Your task to perform on an android device: toggle sleep mode Image 0: 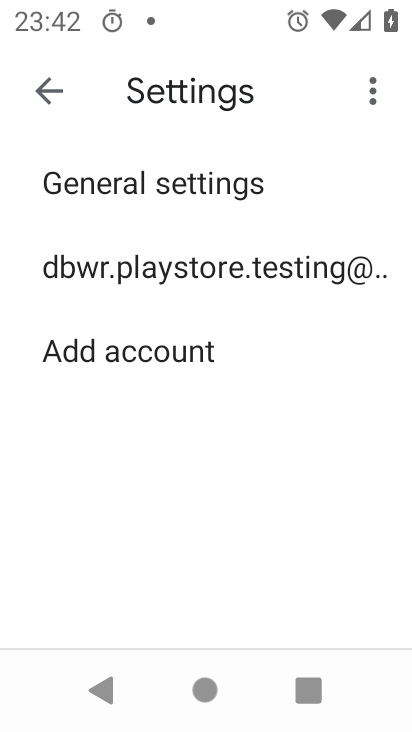
Step 0: press back button
Your task to perform on an android device: toggle sleep mode Image 1: 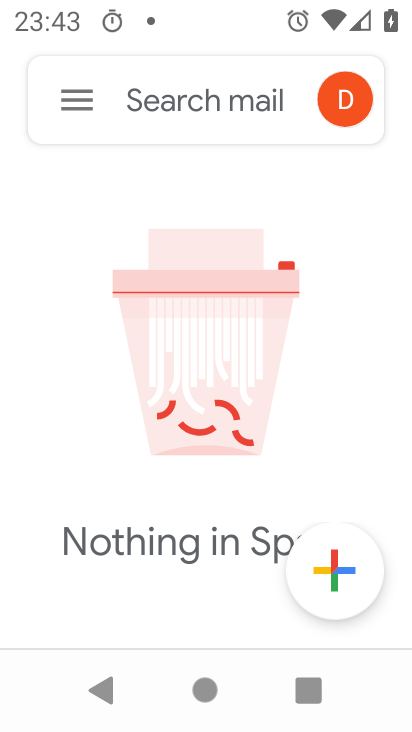
Step 1: press home button
Your task to perform on an android device: toggle sleep mode Image 2: 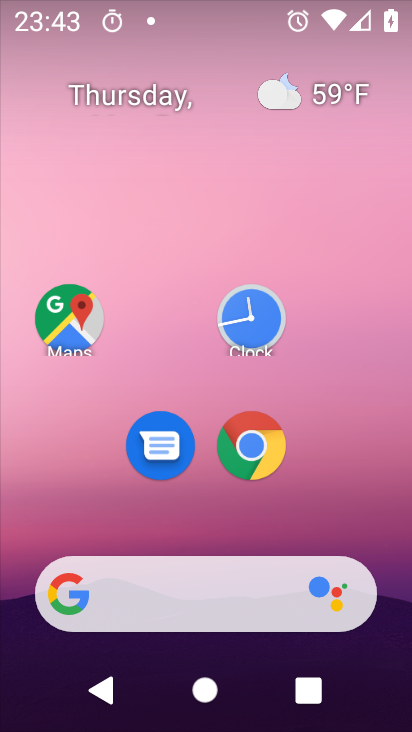
Step 2: drag from (208, 588) to (225, 296)
Your task to perform on an android device: toggle sleep mode Image 3: 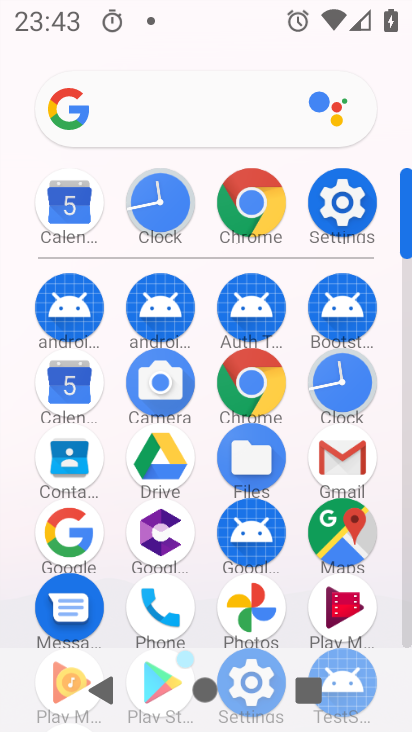
Step 3: click (326, 233)
Your task to perform on an android device: toggle sleep mode Image 4: 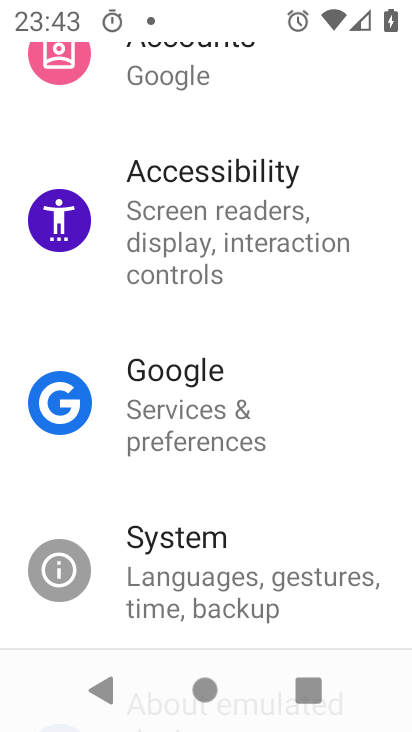
Step 4: drag from (220, 182) to (285, 578)
Your task to perform on an android device: toggle sleep mode Image 5: 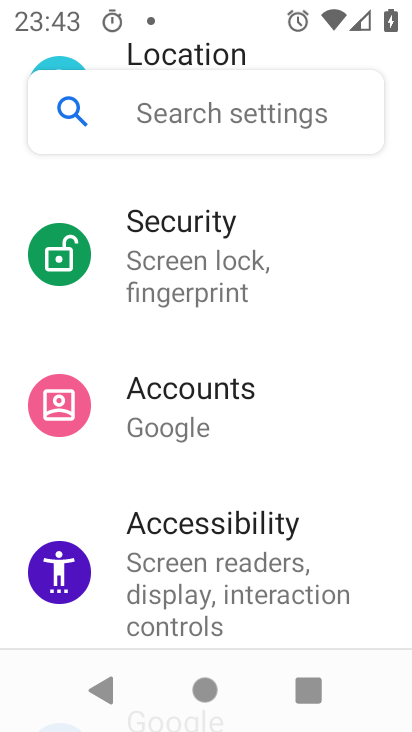
Step 5: drag from (244, 265) to (226, 539)
Your task to perform on an android device: toggle sleep mode Image 6: 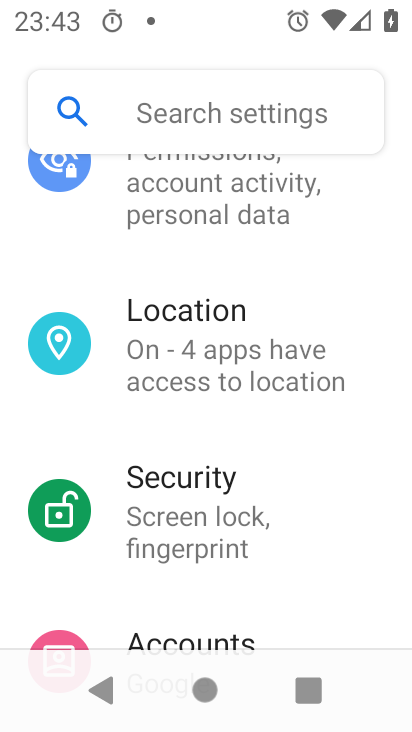
Step 6: drag from (233, 184) to (304, 600)
Your task to perform on an android device: toggle sleep mode Image 7: 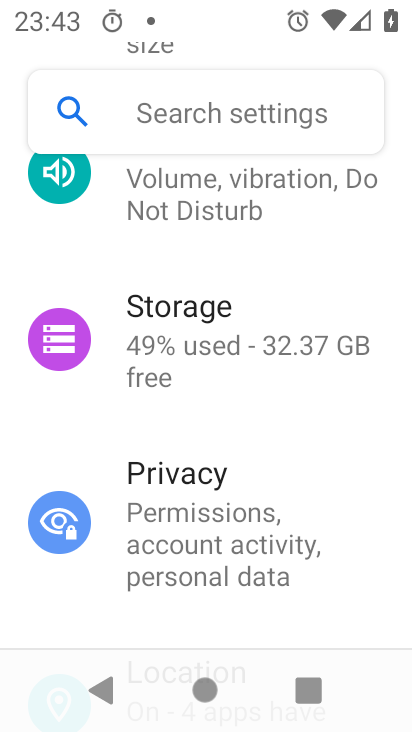
Step 7: drag from (249, 289) to (364, 674)
Your task to perform on an android device: toggle sleep mode Image 8: 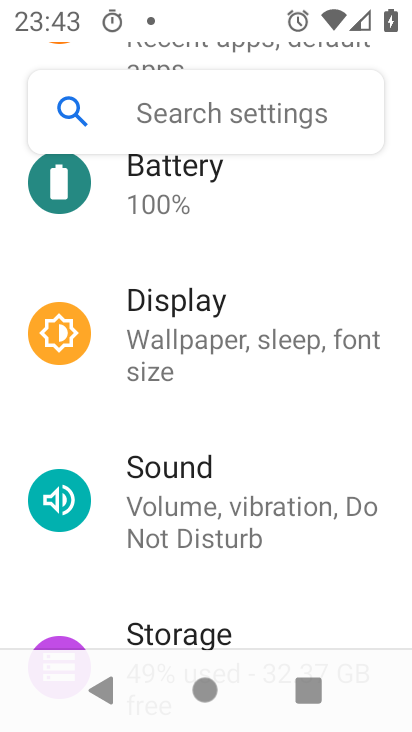
Step 8: click (256, 346)
Your task to perform on an android device: toggle sleep mode Image 9: 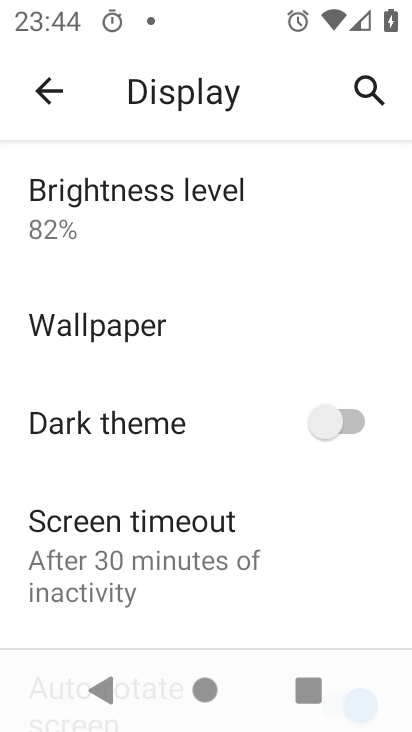
Step 9: task complete